Your task to perform on an android device: check battery use Image 0: 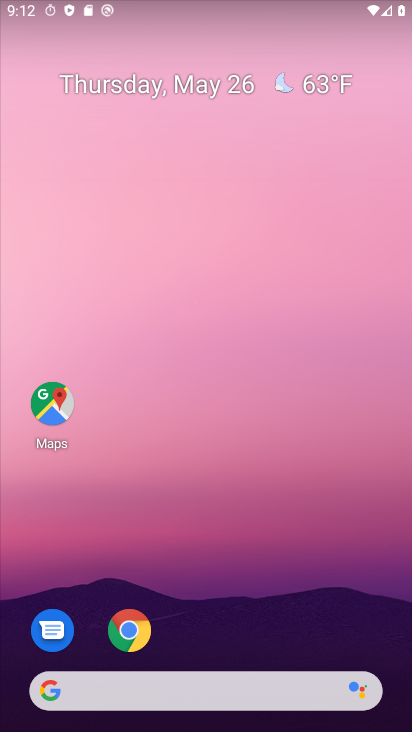
Step 0: drag from (231, 730) to (232, 0)
Your task to perform on an android device: check battery use Image 1: 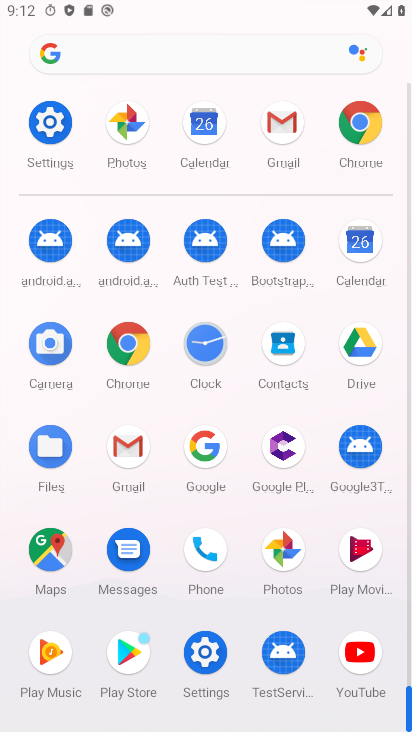
Step 1: click (48, 129)
Your task to perform on an android device: check battery use Image 2: 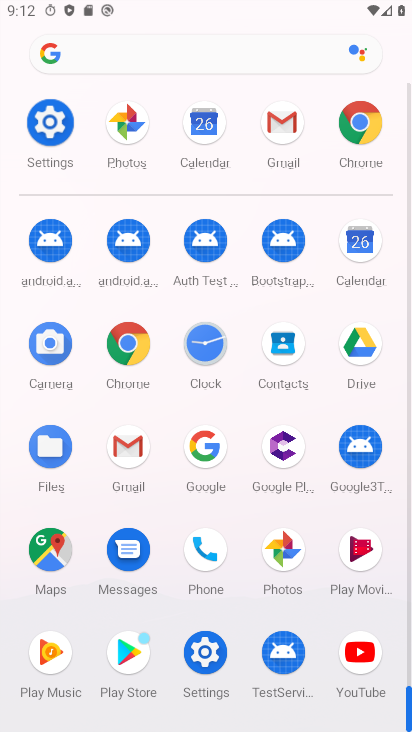
Step 2: click (60, 134)
Your task to perform on an android device: check battery use Image 3: 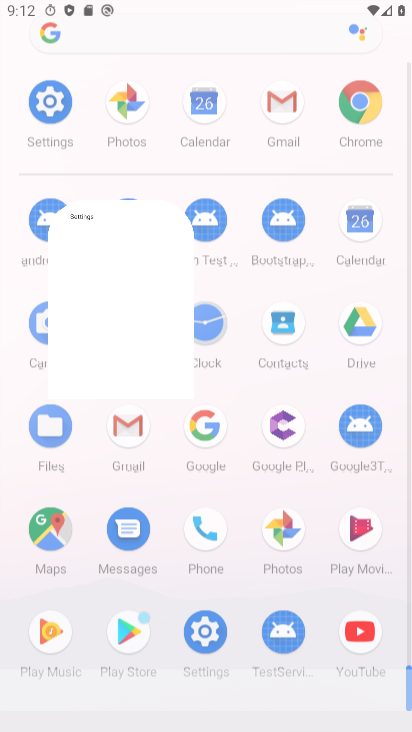
Step 3: click (61, 134)
Your task to perform on an android device: check battery use Image 4: 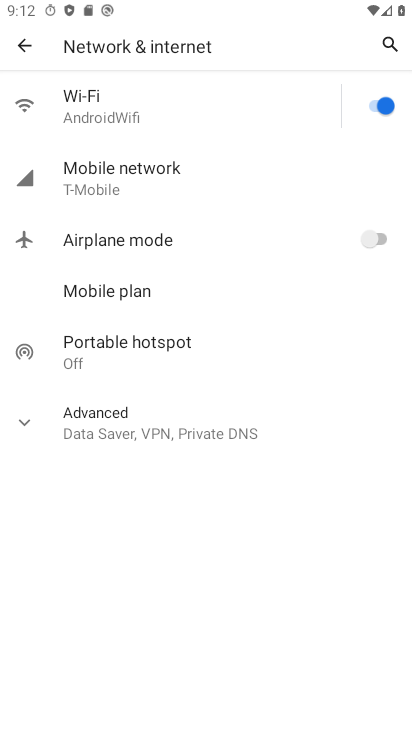
Step 4: click (27, 56)
Your task to perform on an android device: check battery use Image 5: 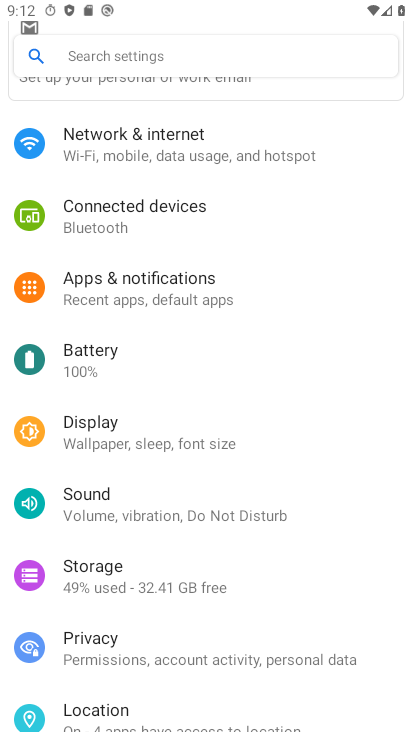
Step 5: click (80, 366)
Your task to perform on an android device: check battery use Image 6: 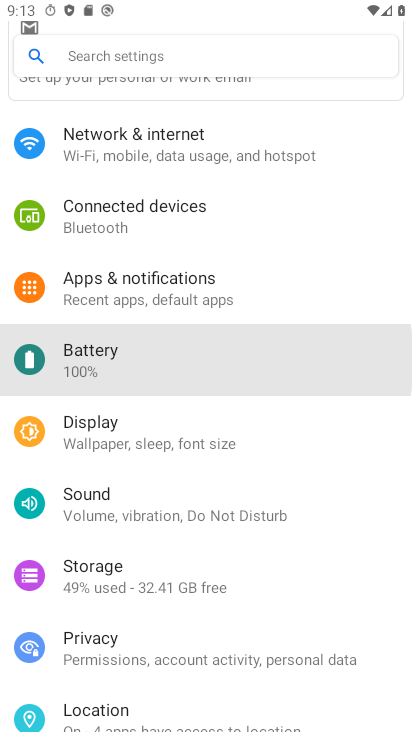
Step 6: click (87, 370)
Your task to perform on an android device: check battery use Image 7: 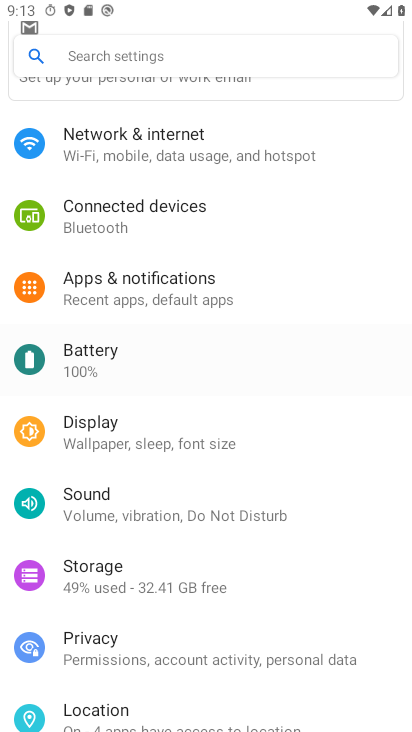
Step 7: click (87, 365)
Your task to perform on an android device: check battery use Image 8: 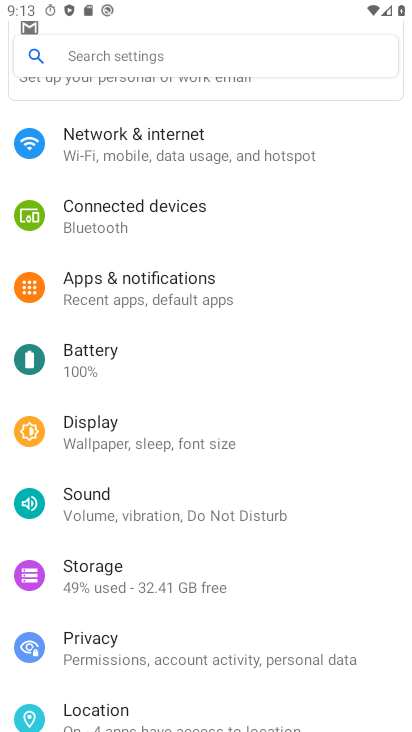
Step 8: click (87, 365)
Your task to perform on an android device: check battery use Image 9: 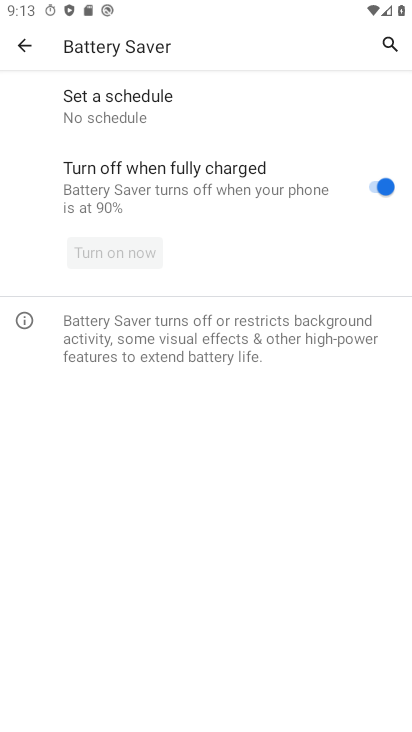
Step 9: click (21, 55)
Your task to perform on an android device: check battery use Image 10: 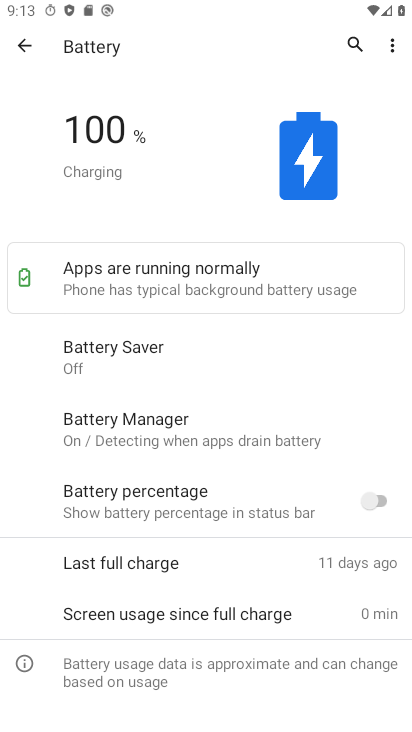
Step 10: task complete